Your task to perform on an android device: Go to sound settings Image 0: 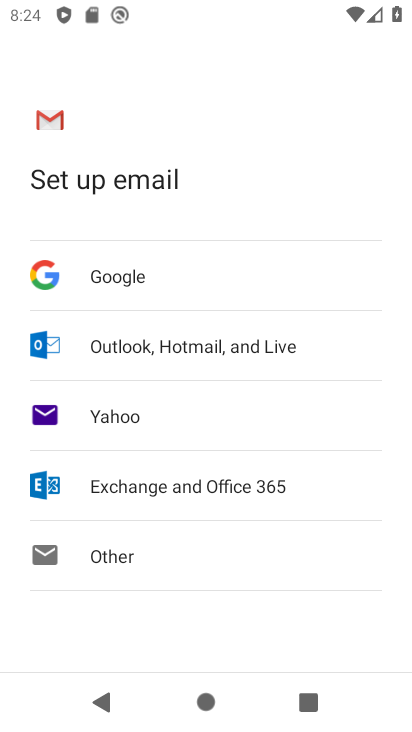
Step 0: press home button
Your task to perform on an android device: Go to sound settings Image 1: 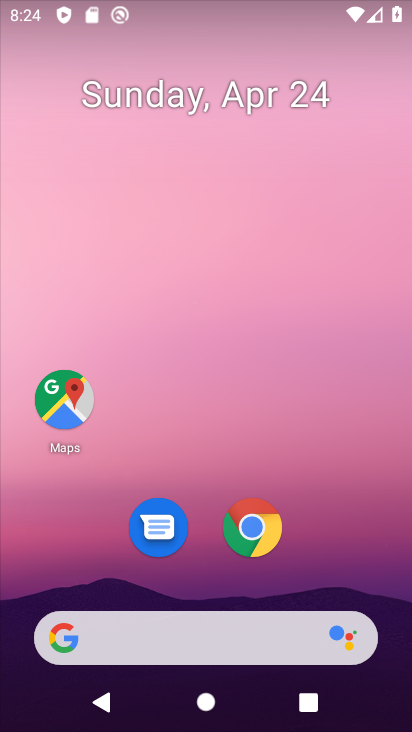
Step 1: drag from (357, 581) to (359, 21)
Your task to perform on an android device: Go to sound settings Image 2: 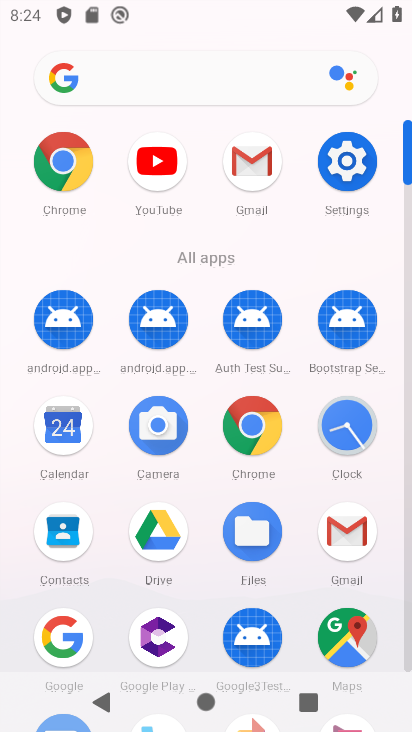
Step 2: click (341, 156)
Your task to perform on an android device: Go to sound settings Image 3: 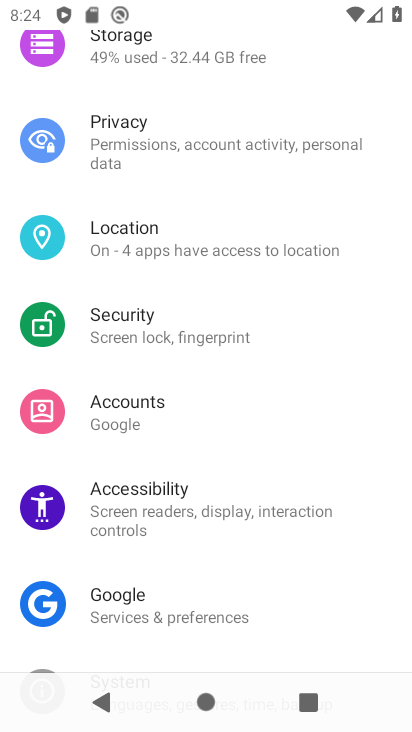
Step 3: drag from (386, 572) to (371, 231)
Your task to perform on an android device: Go to sound settings Image 4: 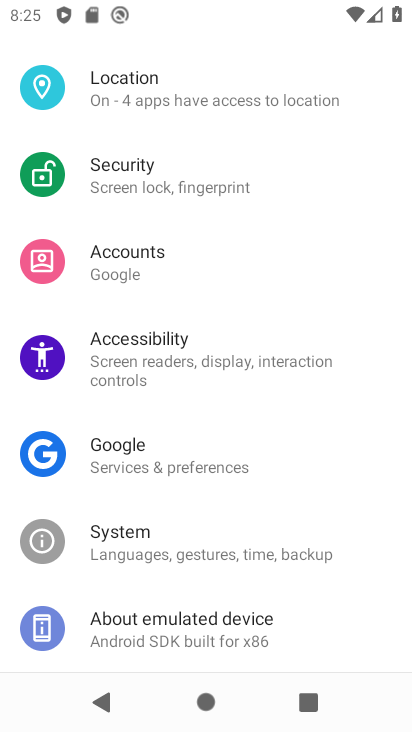
Step 4: drag from (371, 160) to (406, 468)
Your task to perform on an android device: Go to sound settings Image 5: 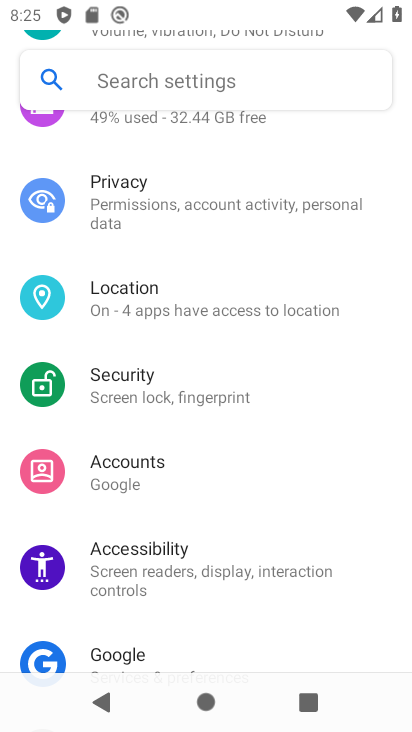
Step 5: drag from (379, 200) to (410, 490)
Your task to perform on an android device: Go to sound settings Image 6: 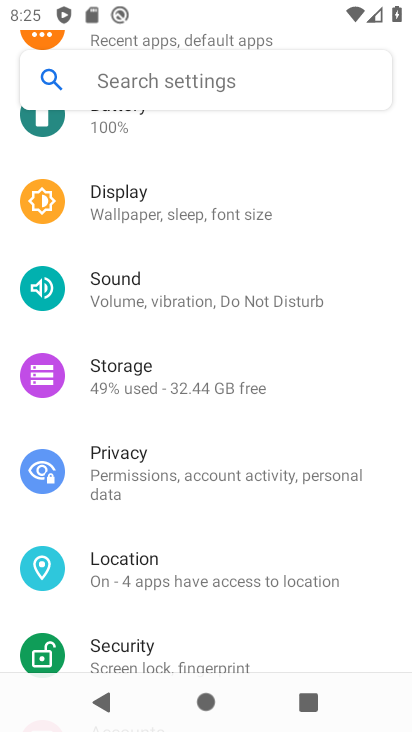
Step 6: click (113, 294)
Your task to perform on an android device: Go to sound settings Image 7: 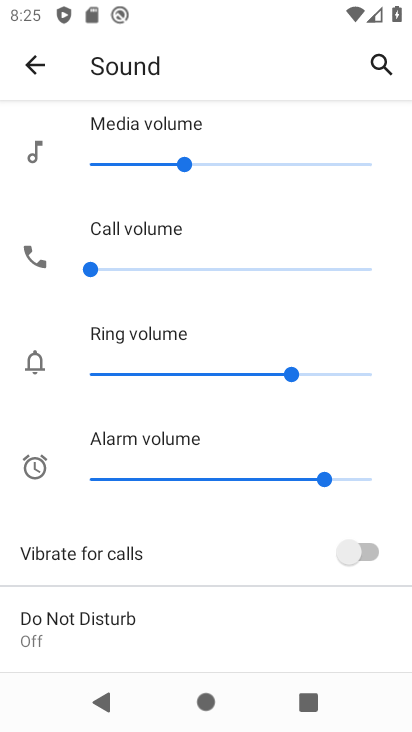
Step 7: task complete